Your task to perform on an android device: When is my next appointment? Image 0: 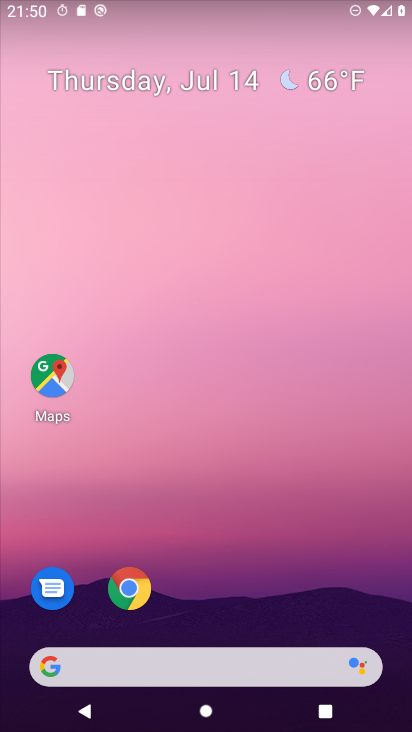
Step 0: drag from (345, 541) to (361, 95)
Your task to perform on an android device: When is my next appointment? Image 1: 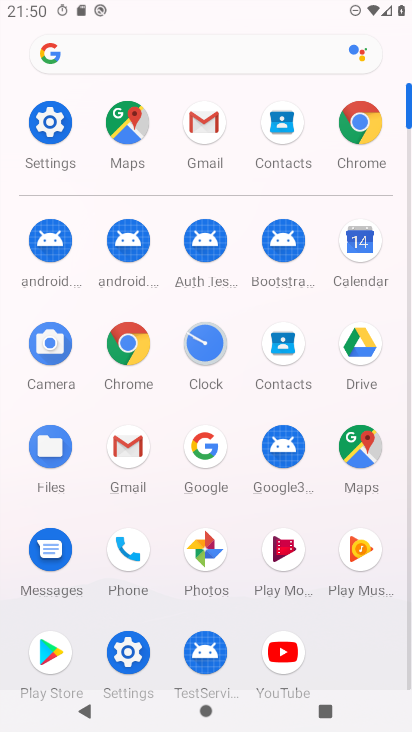
Step 1: click (365, 255)
Your task to perform on an android device: When is my next appointment? Image 2: 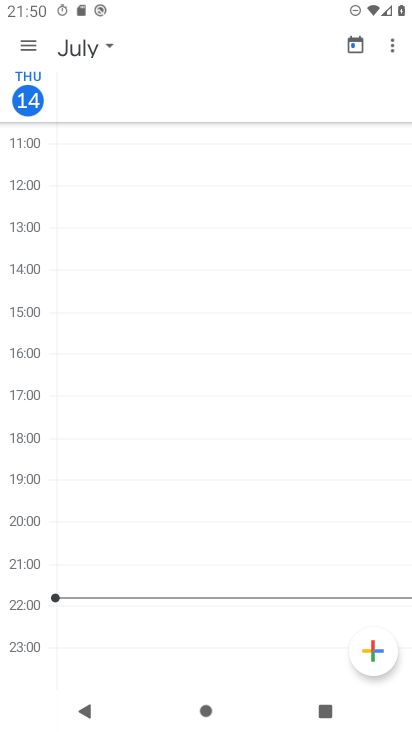
Step 2: click (104, 44)
Your task to perform on an android device: When is my next appointment? Image 3: 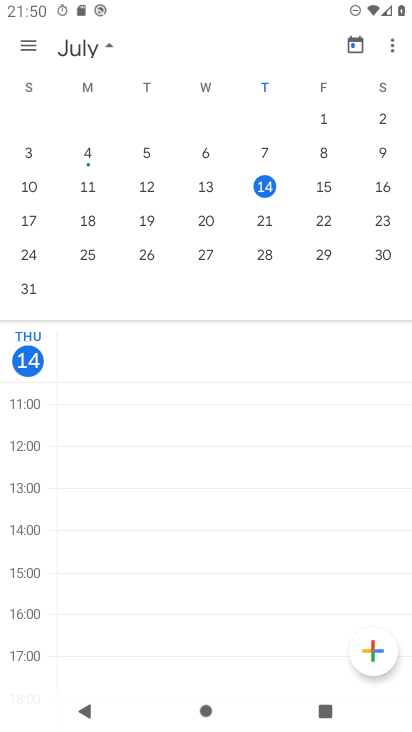
Step 3: click (26, 45)
Your task to perform on an android device: When is my next appointment? Image 4: 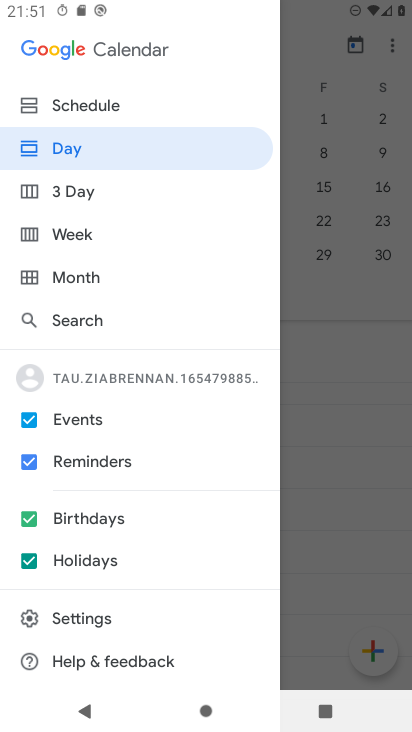
Step 4: click (131, 102)
Your task to perform on an android device: When is my next appointment? Image 5: 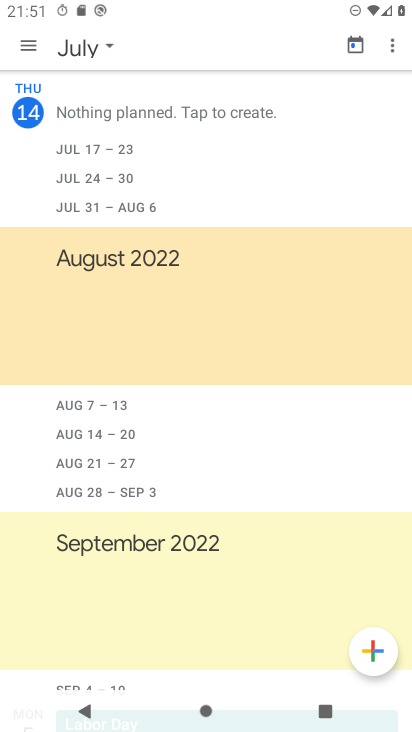
Step 5: task complete